Your task to perform on an android device: change timer sound Image 0: 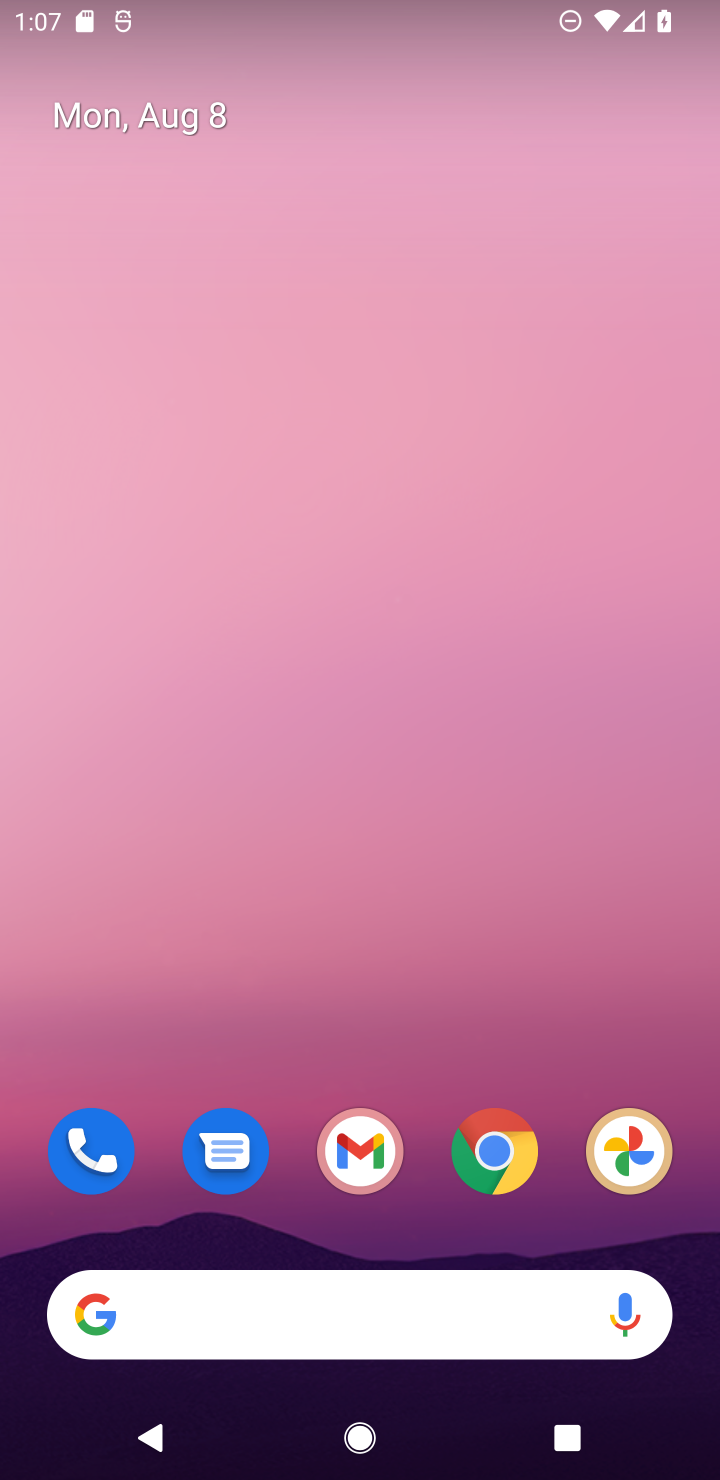
Step 0: drag from (430, 1292) to (408, 628)
Your task to perform on an android device: change timer sound Image 1: 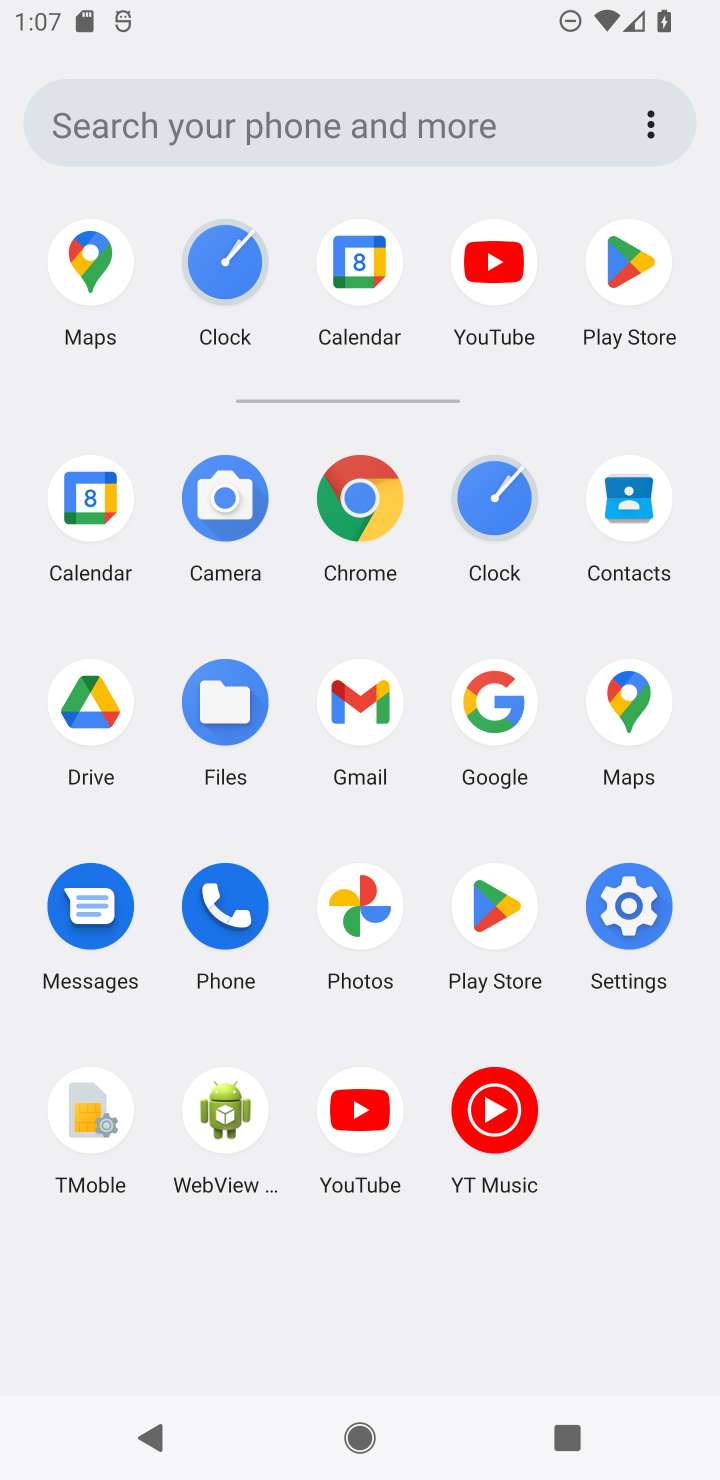
Step 1: click (502, 486)
Your task to perform on an android device: change timer sound Image 2: 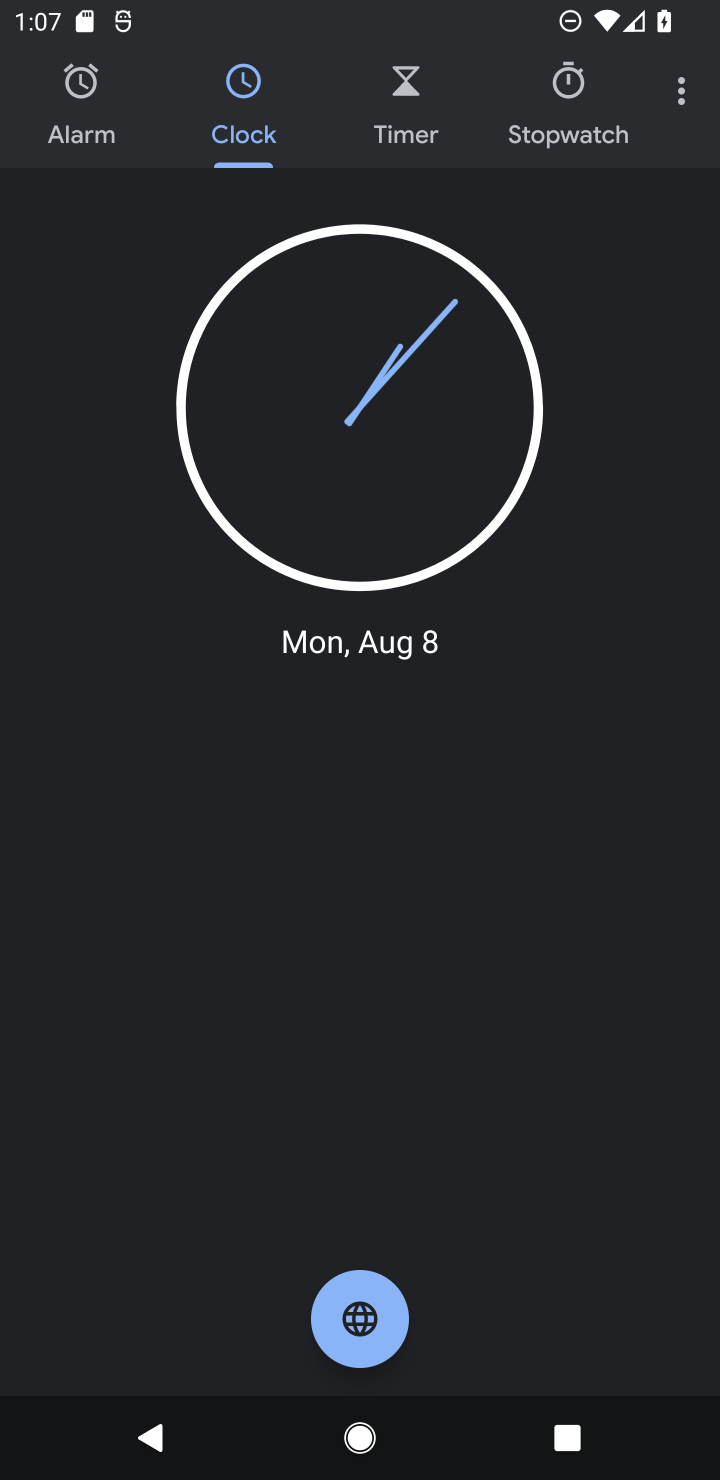
Step 2: click (658, 99)
Your task to perform on an android device: change timer sound Image 3: 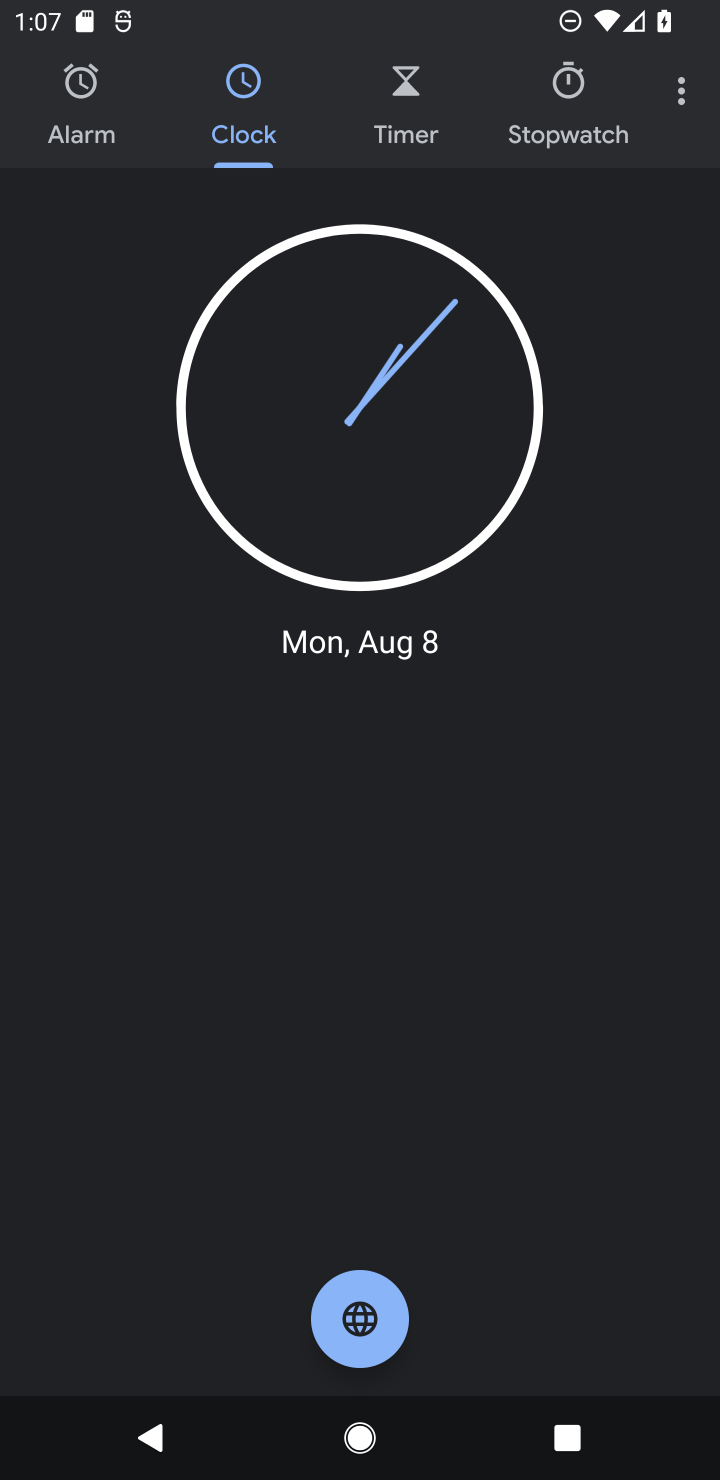
Step 3: click (676, 101)
Your task to perform on an android device: change timer sound Image 4: 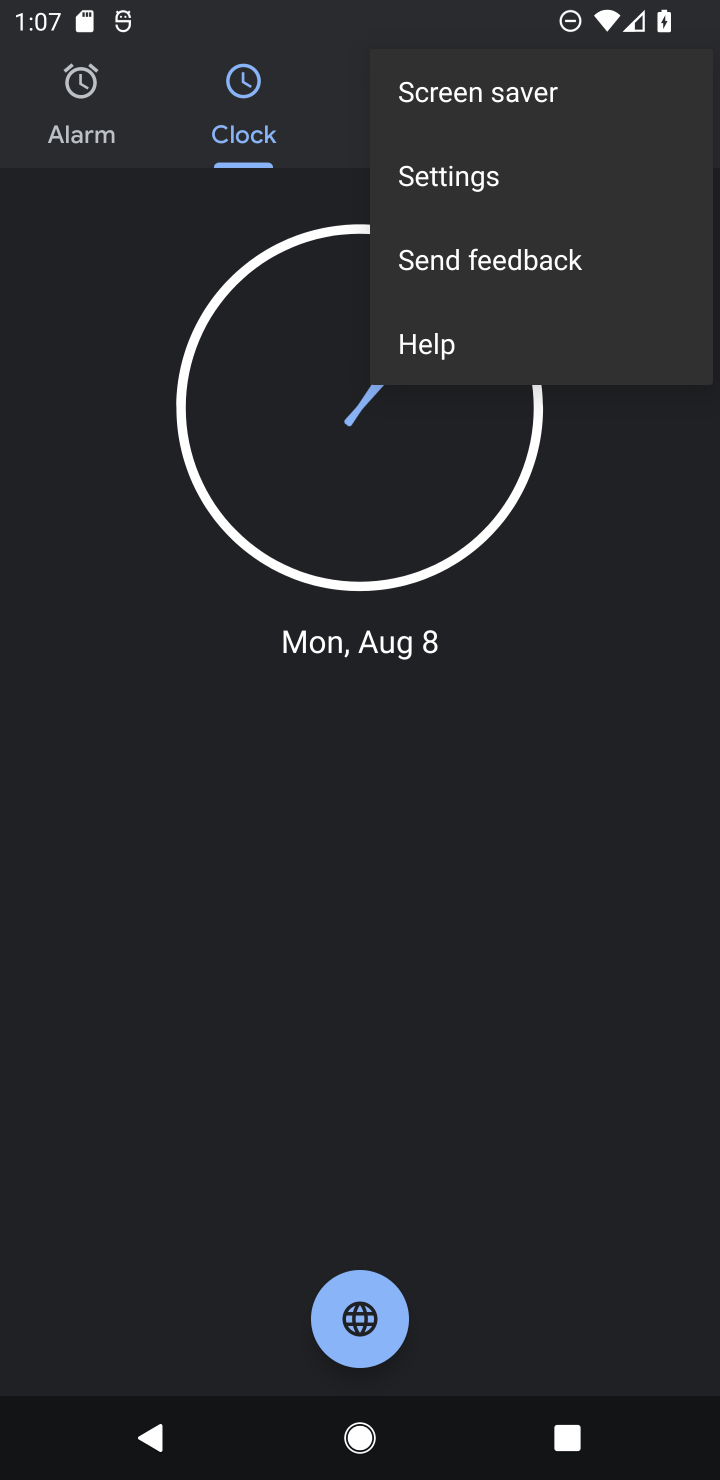
Step 4: click (485, 164)
Your task to perform on an android device: change timer sound Image 5: 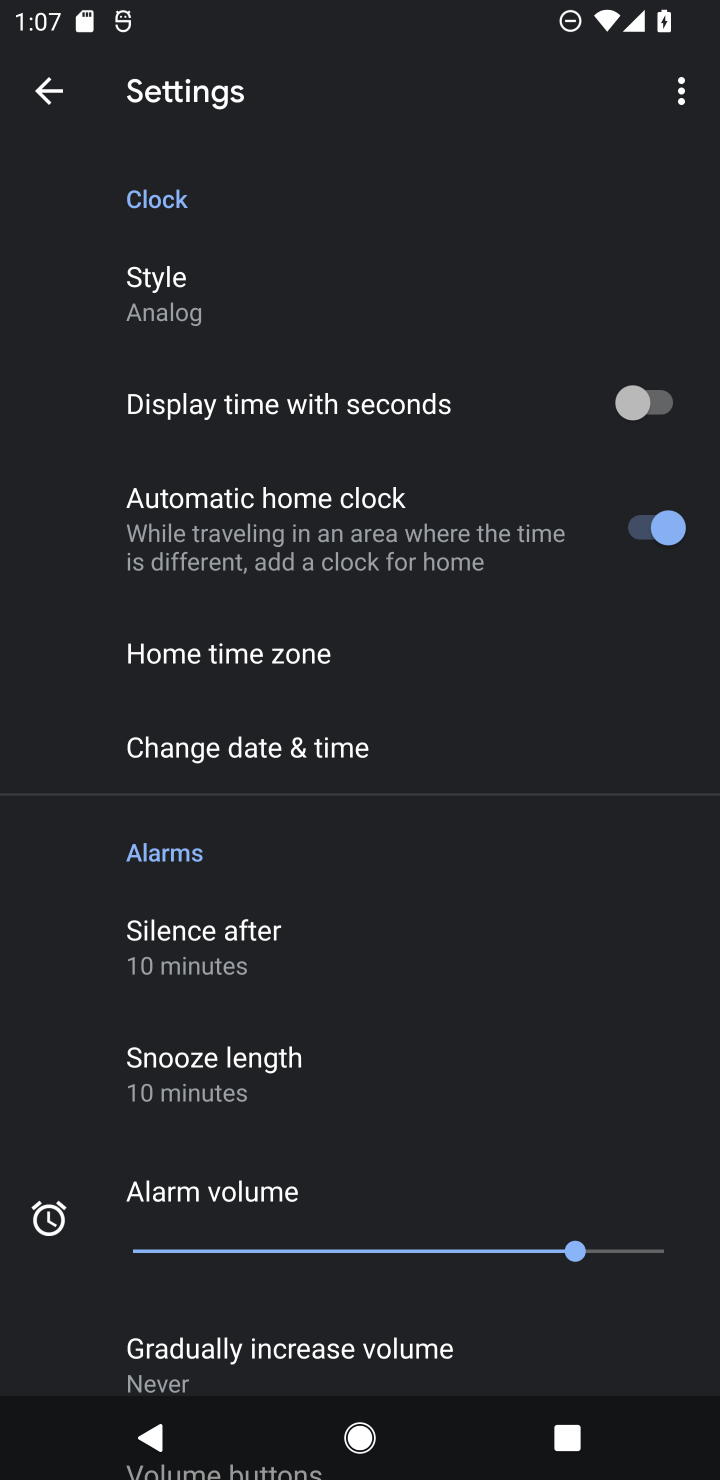
Step 5: drag from (214, 1350) to (210, 824)
Your task to perform on an android device: change timer sound Image 6: 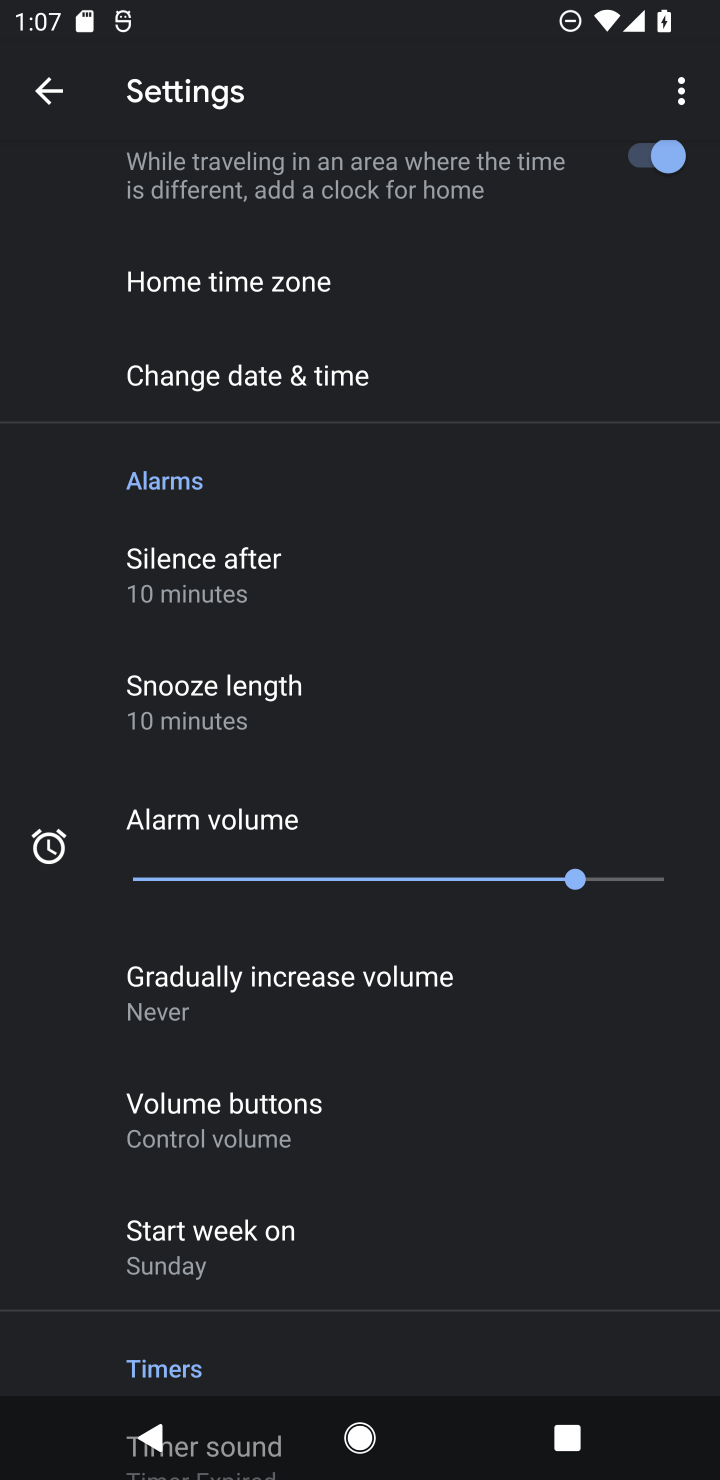
Step 6: drag from (200, 1321) to (259, 793)
Your task to perform on an android device: change timer sound Image 7: 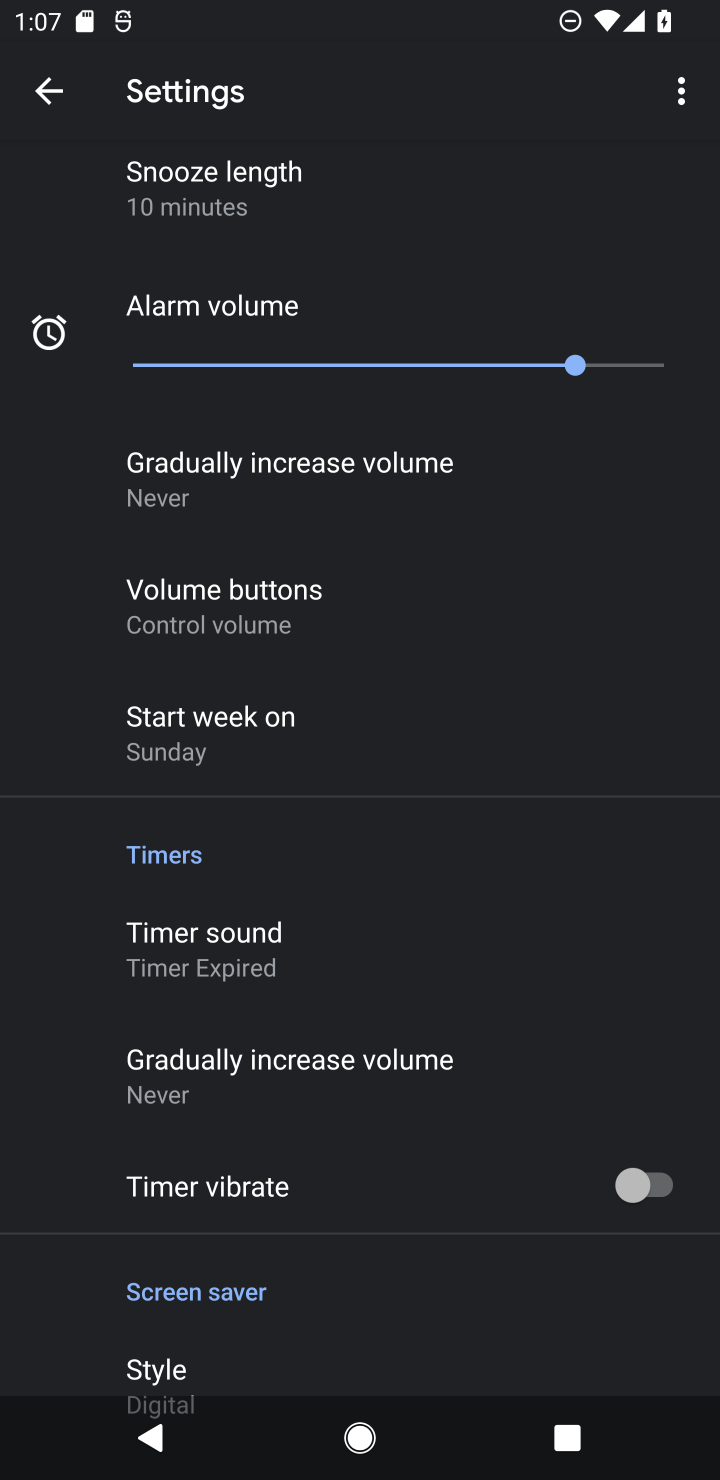
Step 7: click (190, 964)
Your task to perform on an android device: change timer sound Image 8: 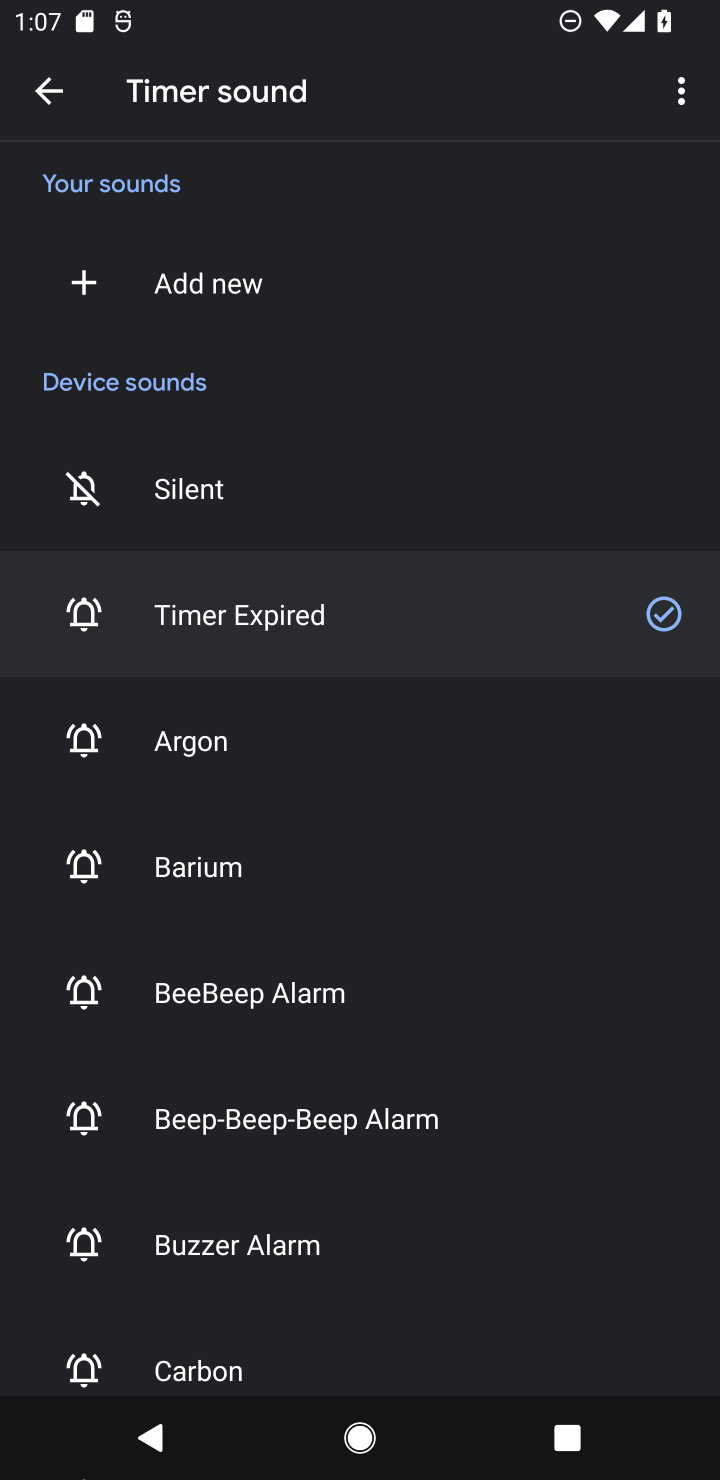
Step 8: click (231, 738)
Your task to perform on an android device: change timer sound Image 9: 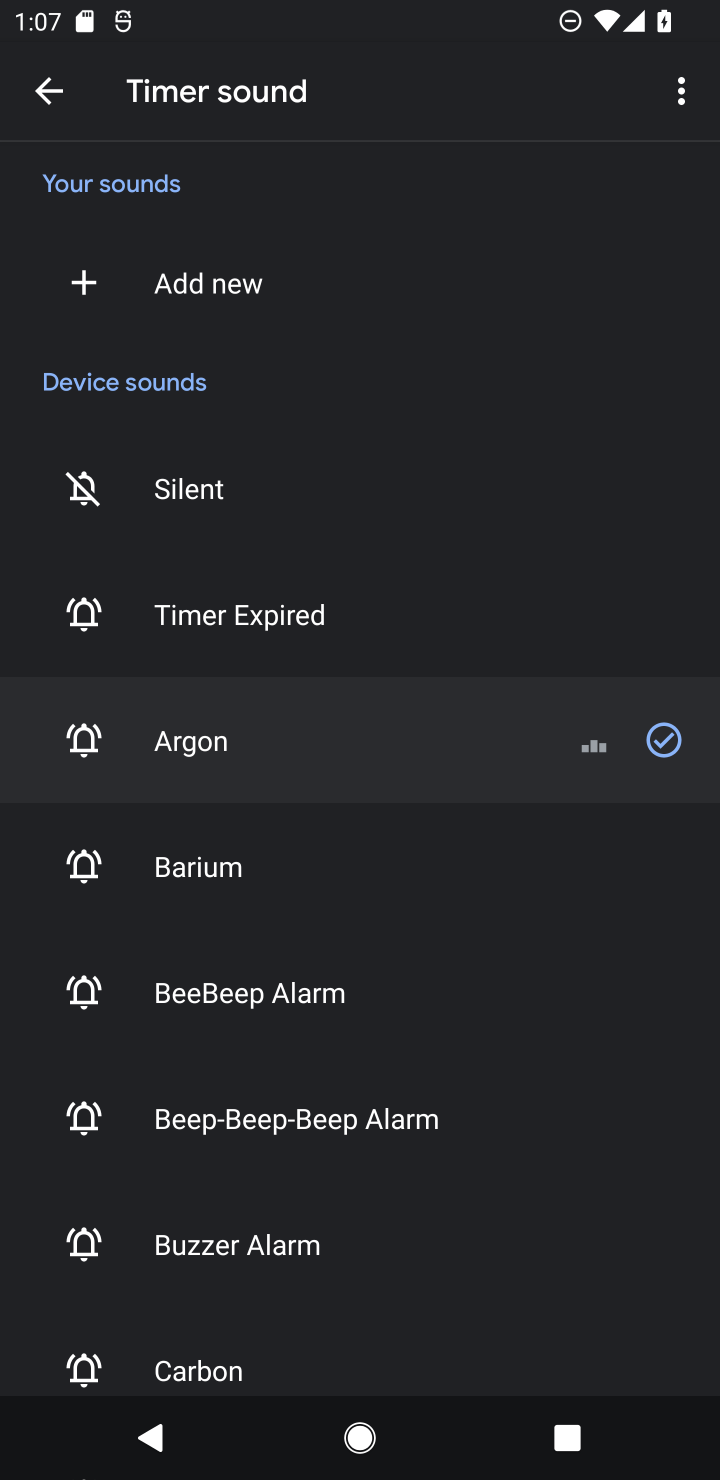
Step 9: task complete